Your task to perform on an android device: Go to Yahoo.com Image 0: 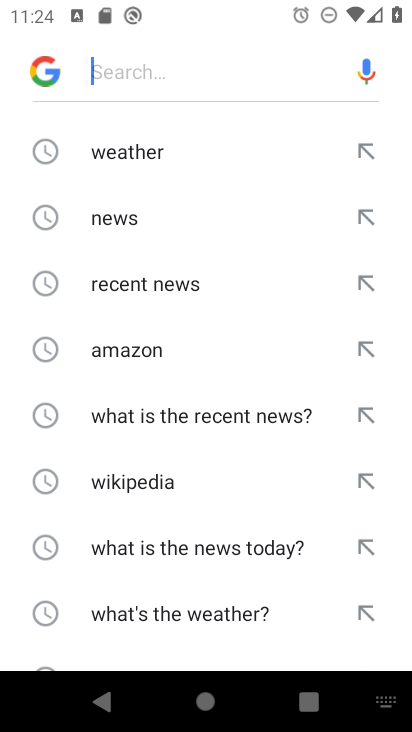
Step 0: press home button
Your task to perform on an android device: Go to Yahoo.com Image 1: 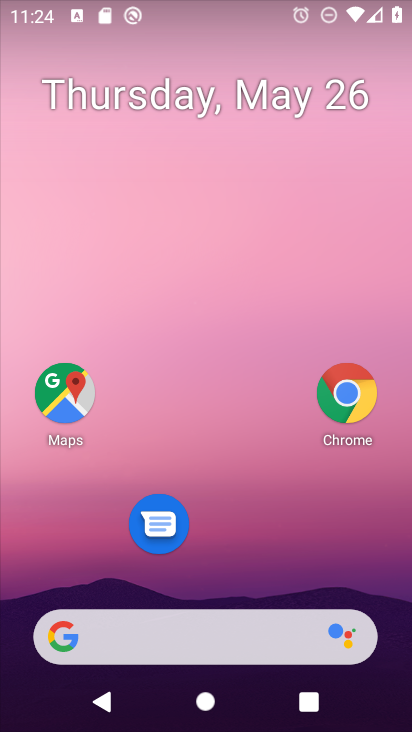
Step 1: click (252, 636)
Your task to perform on an android device: Go to Yahoo.com Image 2: 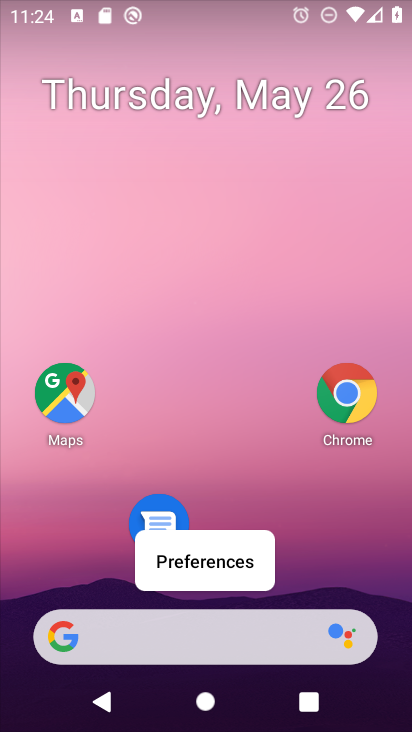
Step 2: click (185, 638)
Your task to perform on an android device: Go to Yahoo.com Image 3: 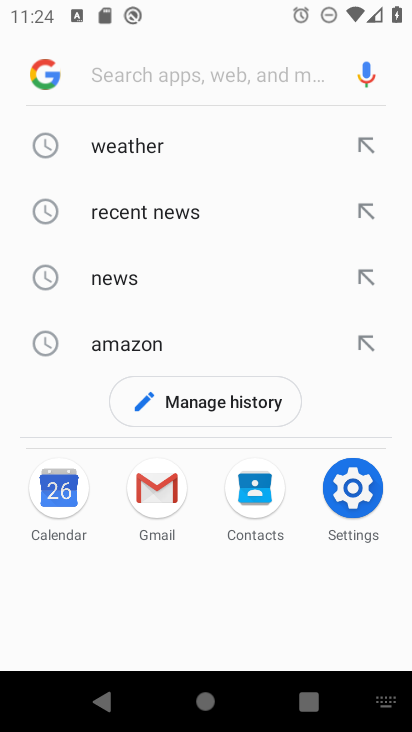
Step 3: type "yahoo.com"
Your task to perform on an android device: Go to Yahoo.com Image 4: 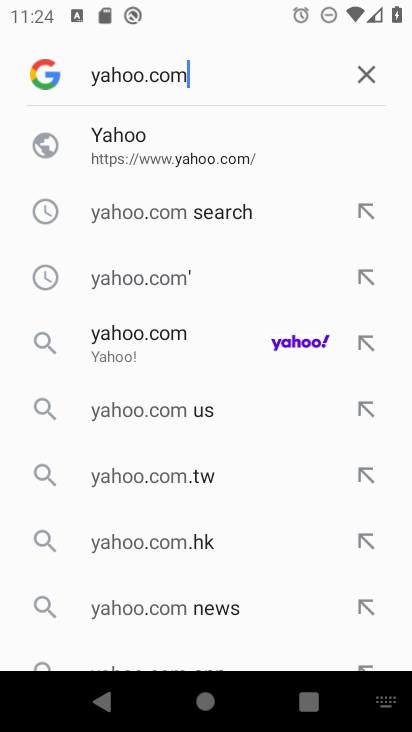
Step 4: click (209, 339)
Your task to perform on an android device: Go to Yahoo.com Image 5: 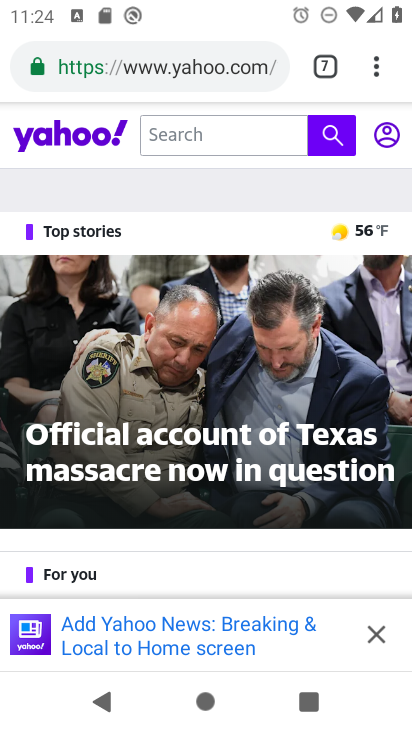
Step 5: task complete